Your task to perform on an android device: toggle notification dots Image 0: 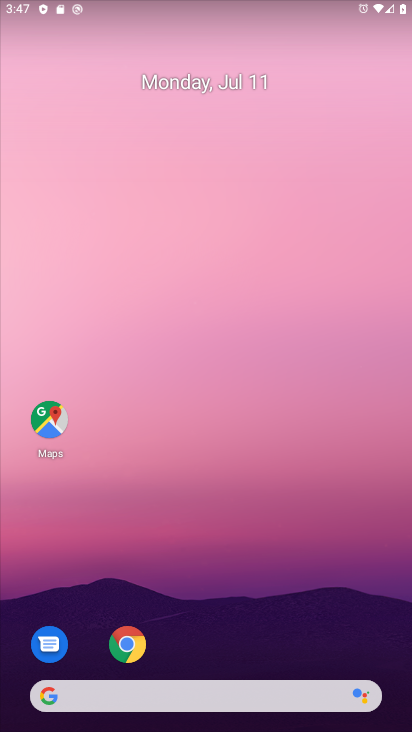
Step 0: drag from (84, 681) to (129, 84)
Your task to perform on an android device: toggle notification dots Image 1: 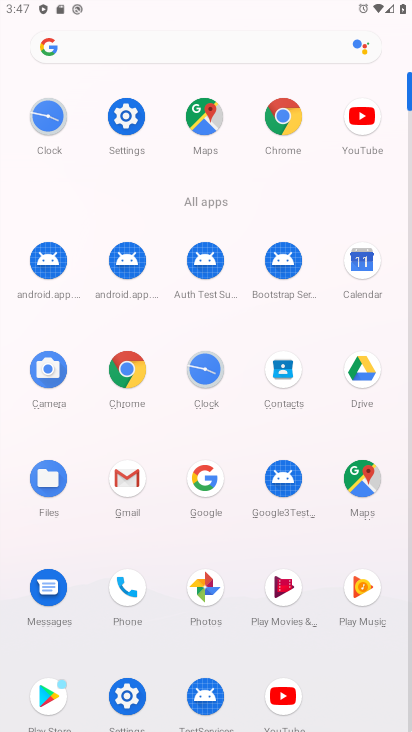
Step 1: click (122, 129)
Your task to perform on an android device: toggle notification dots Image 2: 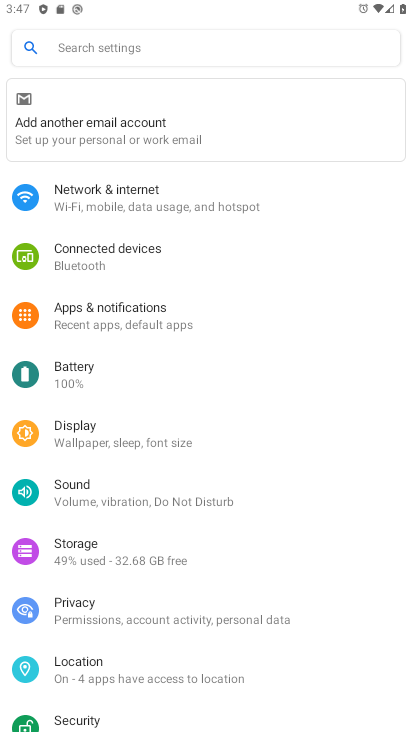
Step 2: click (103, 308)
Your task to perform on an android device: toggle notification dots Image 3: 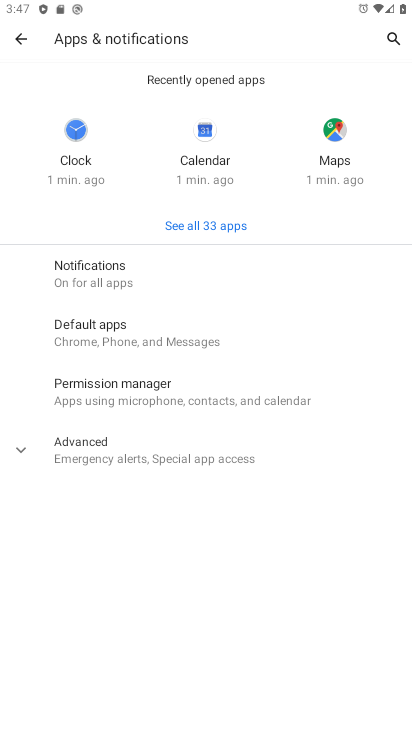
Step 3: click (105, 284)
Your task to perform on an android device: toggle notification dots Image 4: 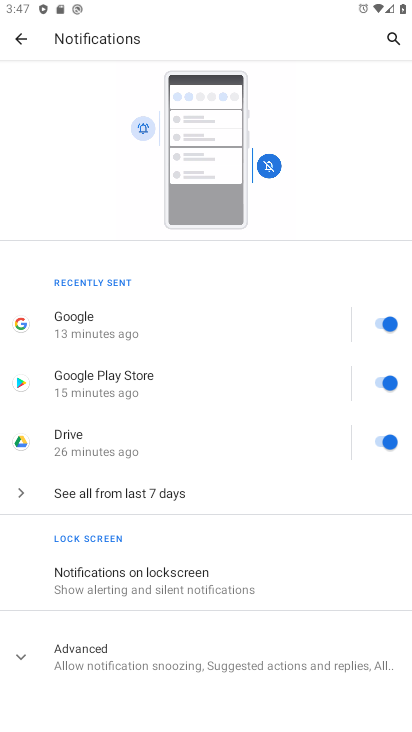
Step 4: drag from (281, 512) to (288, 421)
Your task to perform on an android device: toggle notification dots Image 5: 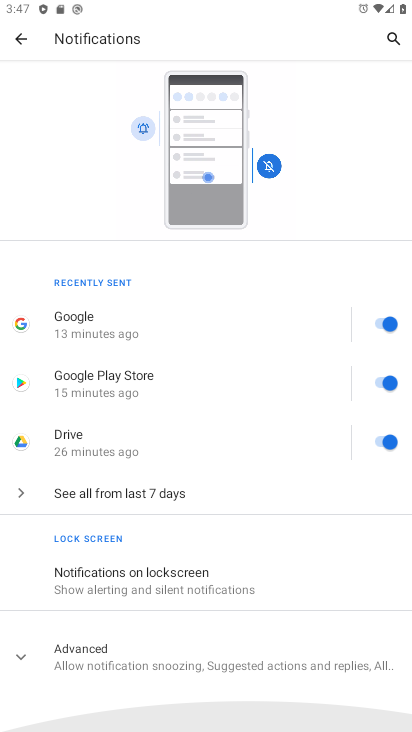
Step 5: click (220, 666)
Your task to perform on an android device: toggle notification dots Image 6: 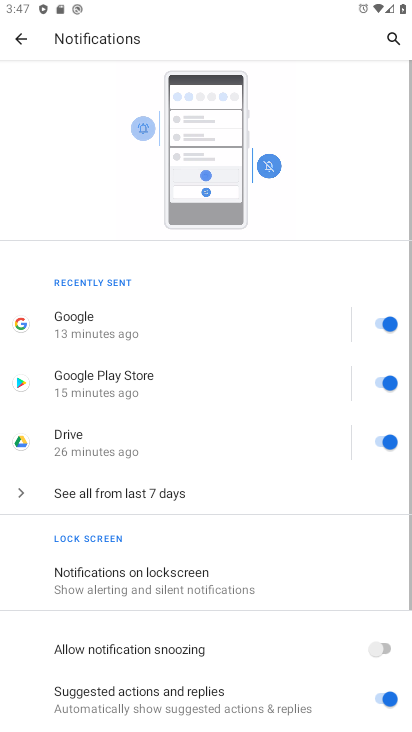
Step 6: drag from (218, 668) to (263, 240)
Your task to perform on an android device: toggle notification dots Image 7: 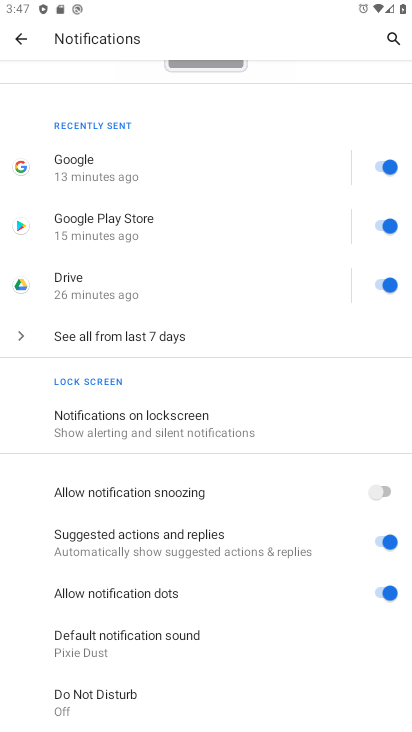
Step 7: click (378, 588)
Your task to perform on an android device: toggle notification dots Image 8: 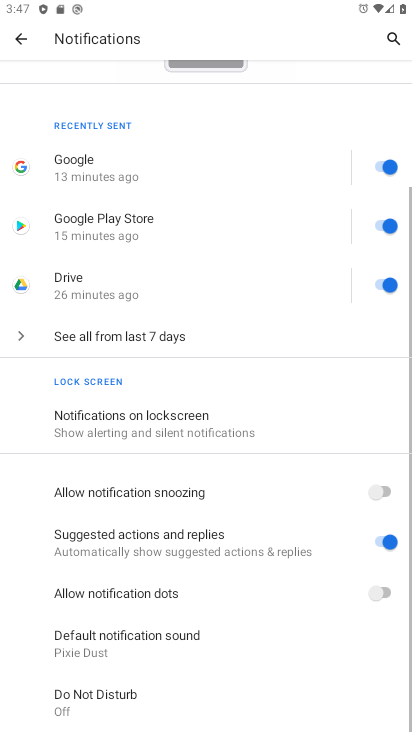
Step 8: task complete